Your task to perform on an android device: Open privacy settings Image 0: 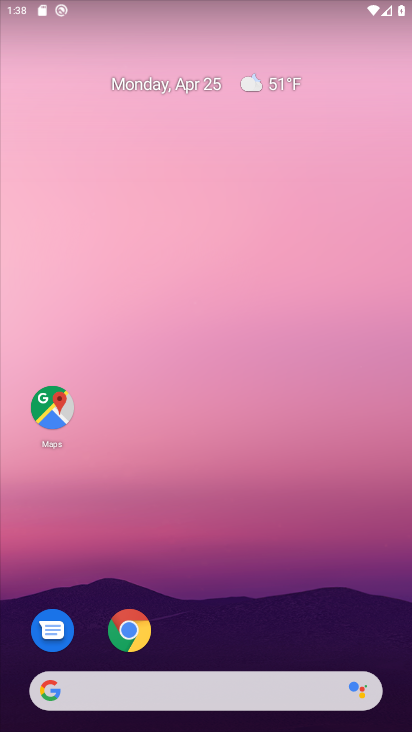
Step 0: drag from (347, 574) to (285, 171)
Your task to perform on an android device: Open privacy settings Image 1: 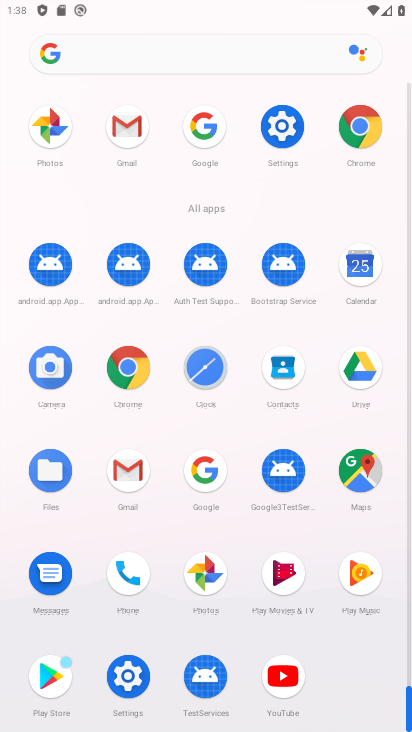
Step 1: click (281, 136)
Your task to perform on an android device: Open privacy settings Image 2: 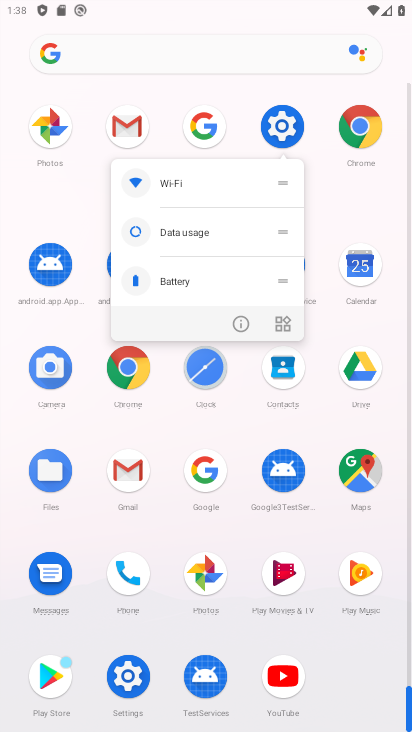
Step 2: click (281, 136)
Your task to perform on an android device: Open privacy settings Image 3: 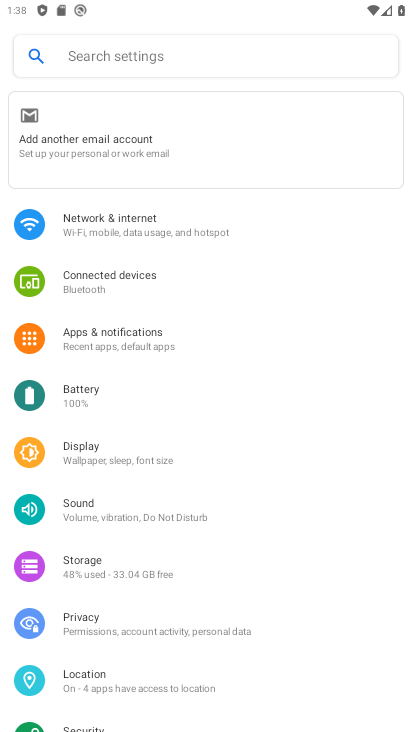
Step 3: drag from (240, 637) to (270, 198)
Your task to perform on an android device: Open privacy settings Image 4: 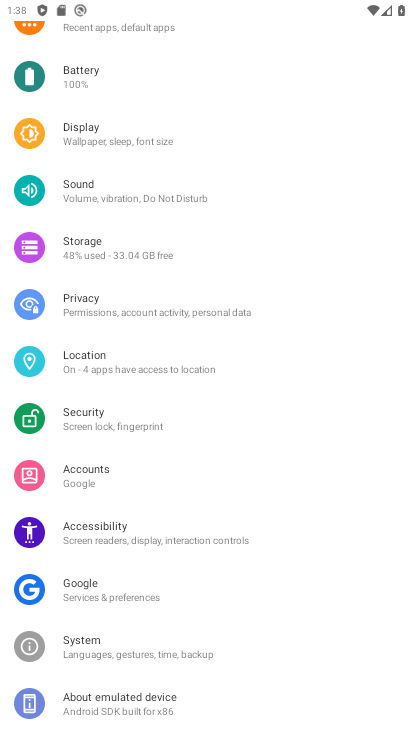
Step 4: click (116, 311)
Your task to perform on an android device: Open privacy settings Image 5: 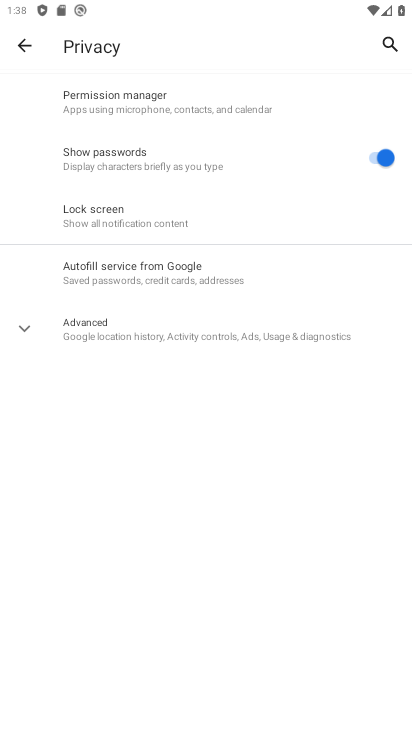
Step 5: task complete